Your task to perform on an android device: Open calendar and show me the fourth week of next month Image 0: 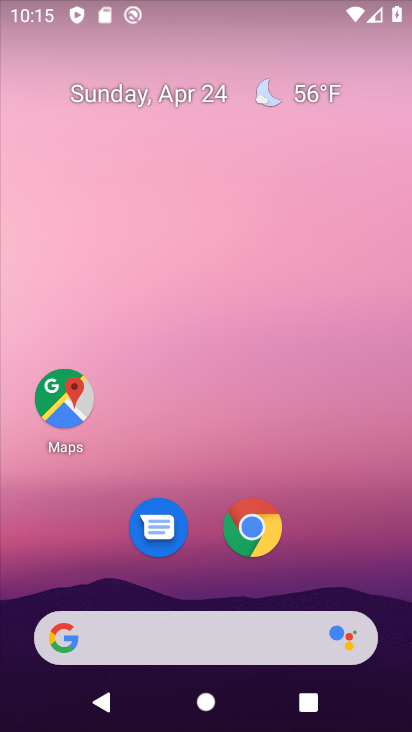
Step 0: drag from (198, 545) to (243, 56)
Your task to perform on an android device: Open calendar and show me the fourth week of next month Image 1: 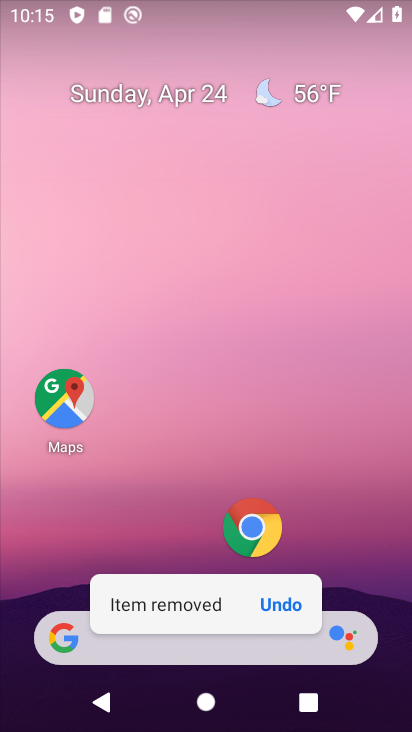
Step 1: drag from (150, 549) to (240, 6)
Your task to perform on an android device: Open calendar and show me the fourth week of next month Image 2: 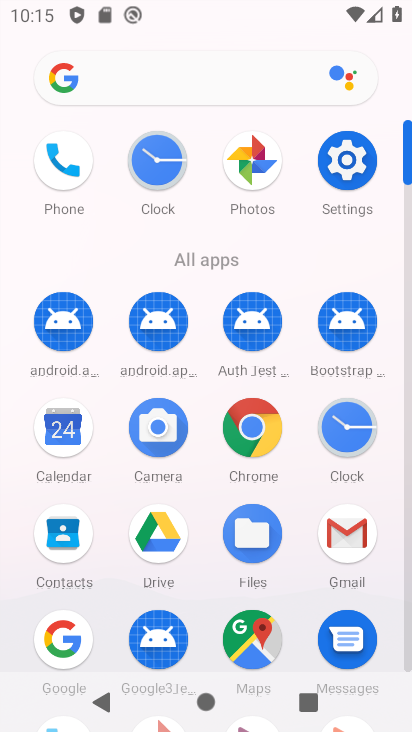
Step 2: click (58, 433)
Your task to perform on an android device: Open calendar and show me the fourth week of next month Image 3: 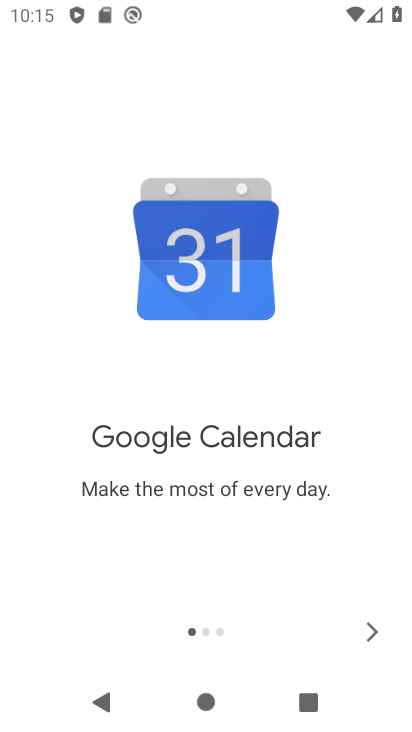
Step 3: click (364, 628)
Your task to perform on an android device: Open calendar and show me the fourth week of next month Image 4: 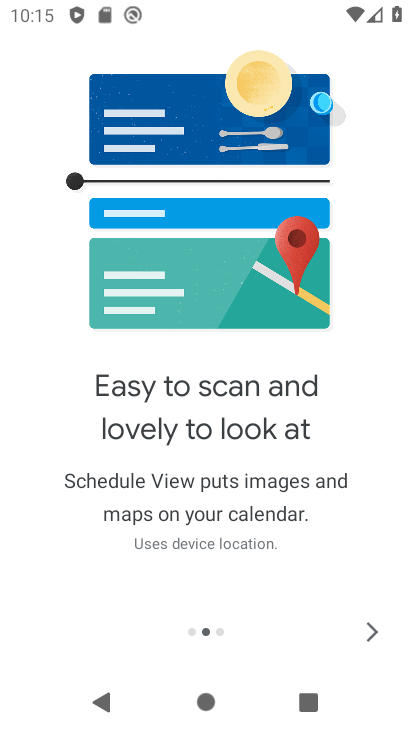
Step 4: click (366, 629)
Your task to perform on an android device: Open calendar and show me the fourth week of next month Image 5: 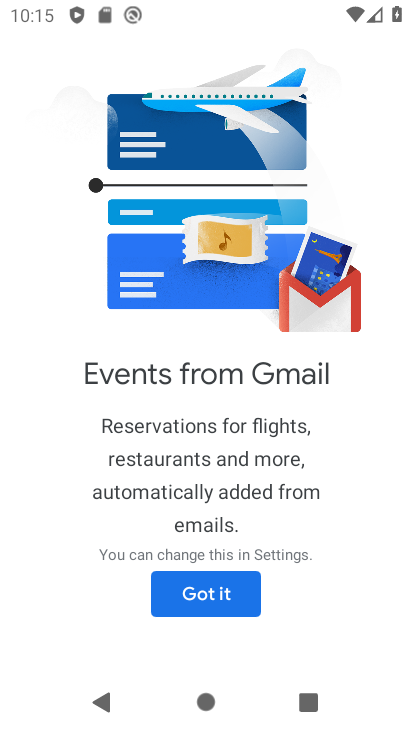
Step 5: click (207, 591)
Your task to perform on an android device: Open calendar and show me the fourth week of next month Image 6: 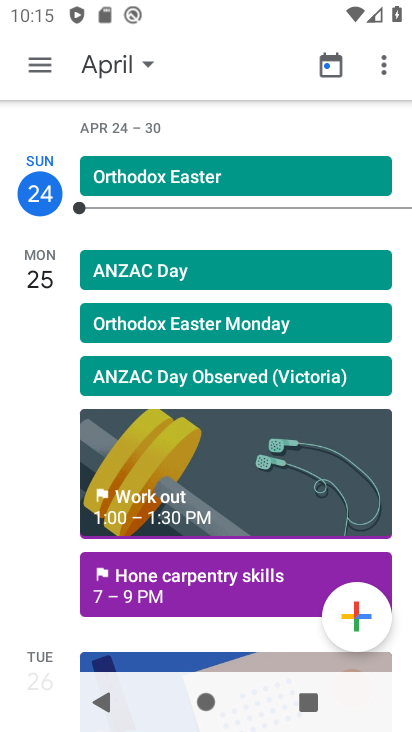
Step 6: click (36, 72)
Your task to perform on an android device: Open calendar and show me the fourth week of next month Image 7: 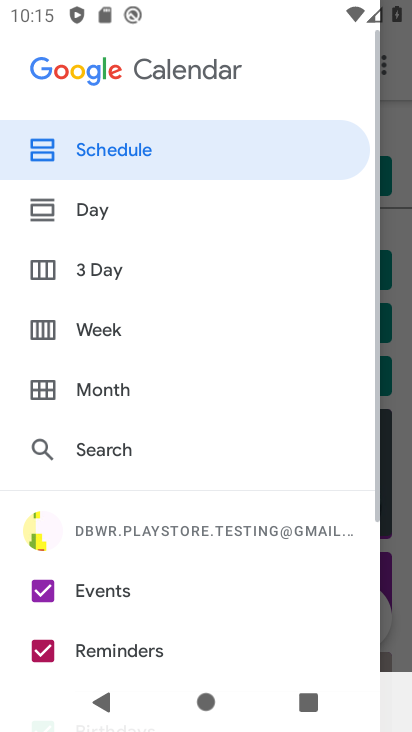
Step 7: click (102, 332)
Your task to perform on an android device: Open calendar and show me the fourth week of next month Image 8: 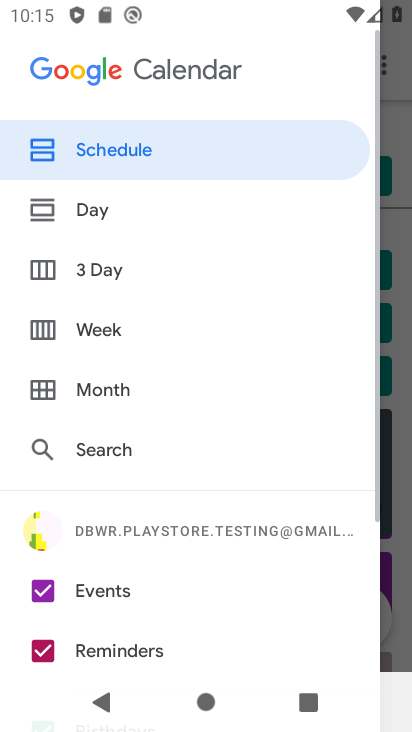
Step 8: click (119, 332)
Your task to perform on an android device: Open calendar and show me the fourth week of next month Image 9: 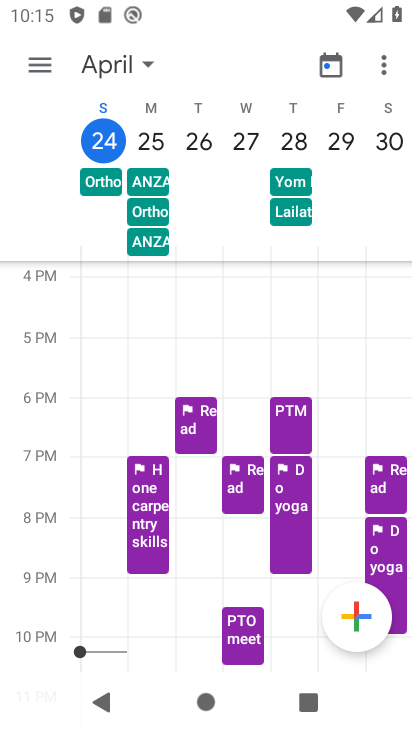
Step 9: task complete